Your task to perform on an android device: uninstall "Grab" Image 0: 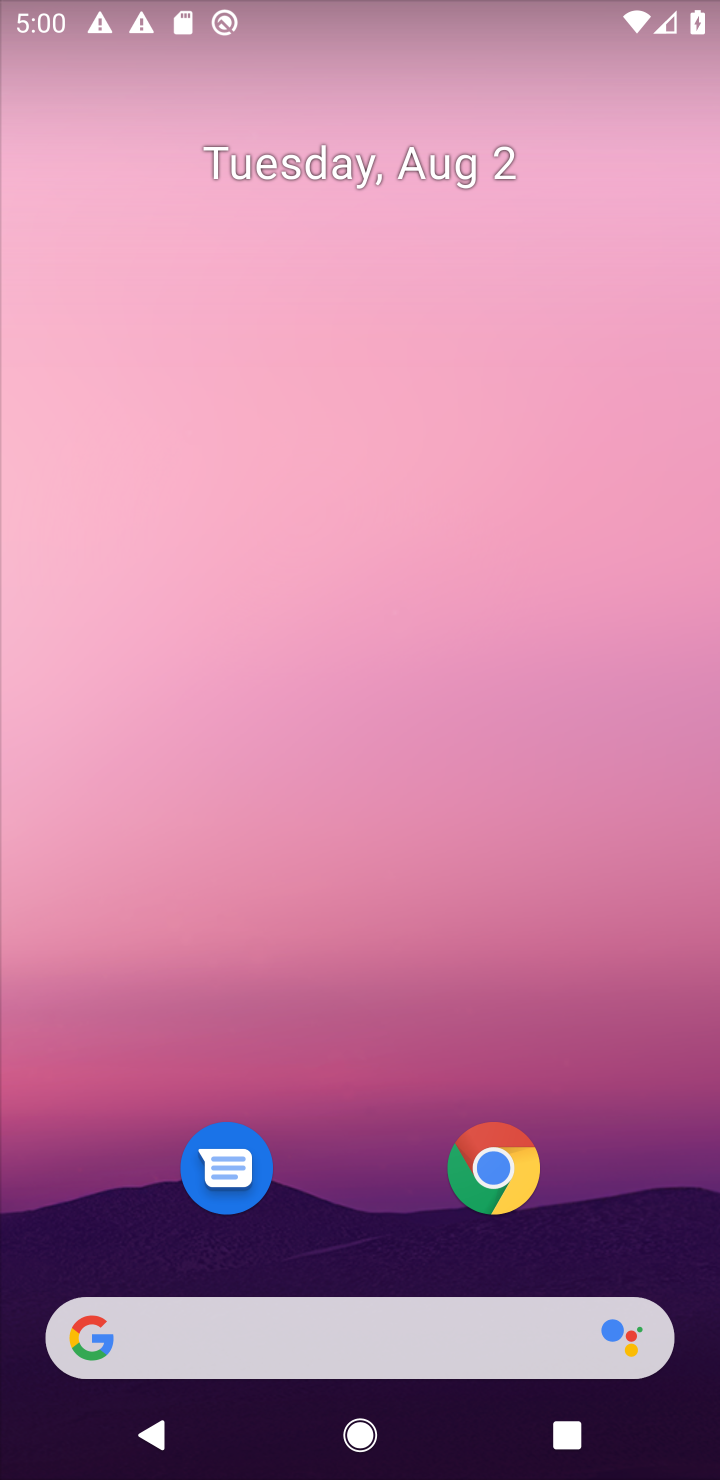
Step 0: drag from (365, 1250) to (335, 59)
Your task to perform on an android device: uninstall "Grab" Image 1: 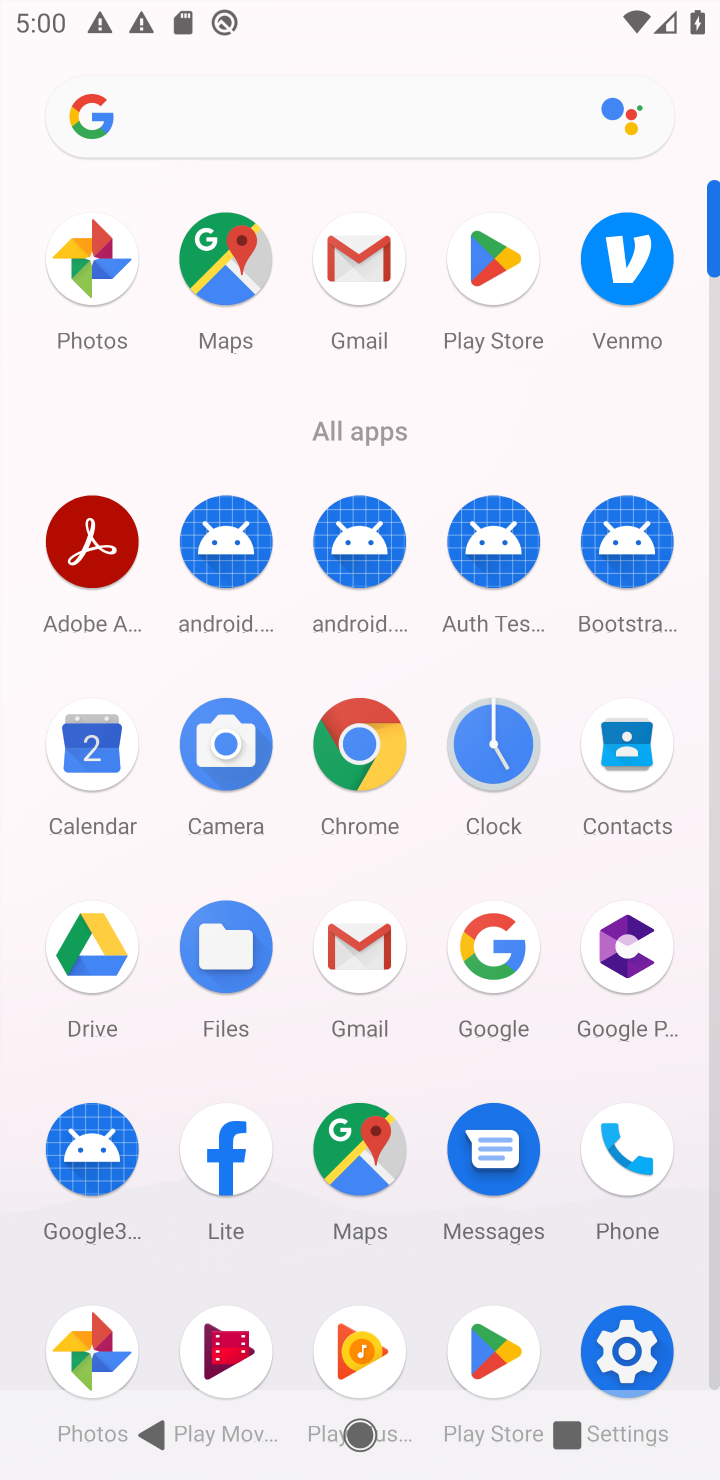
Step 1: click (527, 292)
Your task to perform on an android device: uninstall "Grab" Image 2: 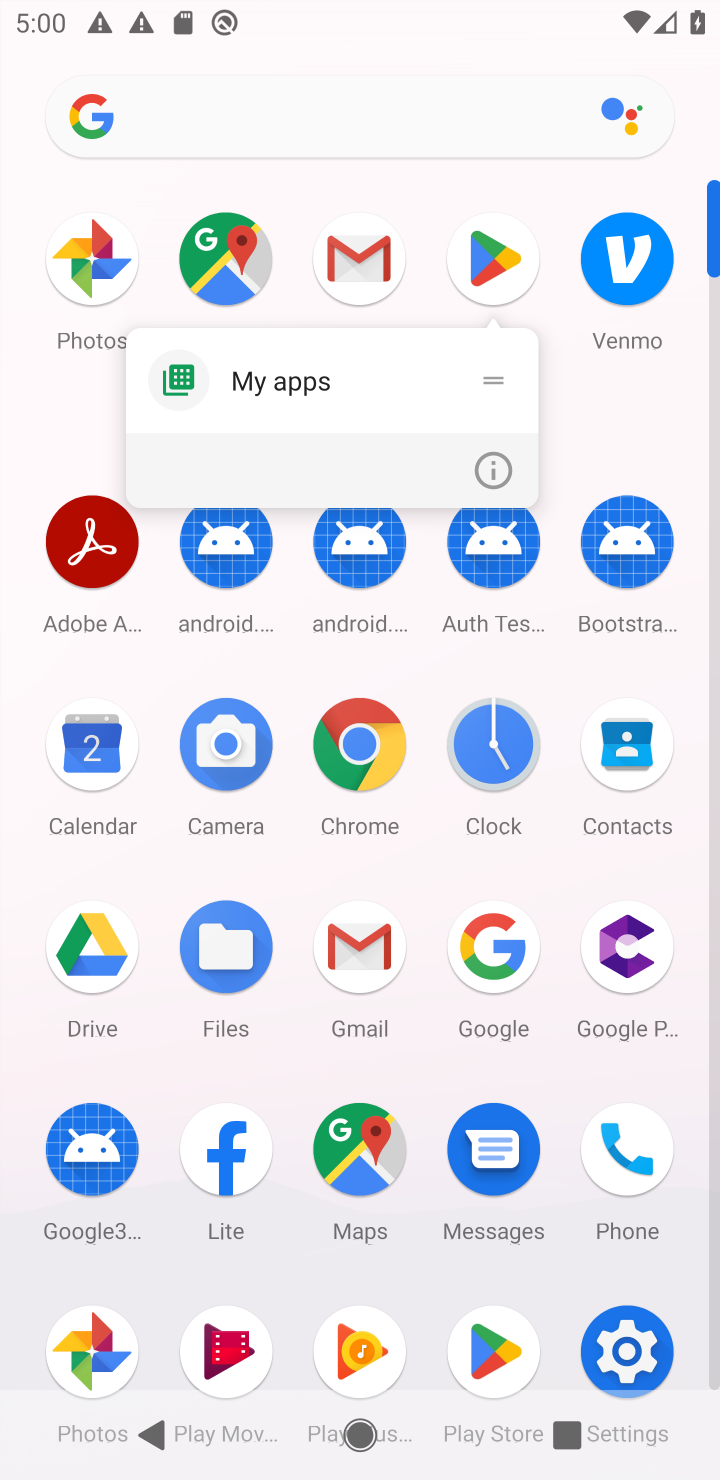
Step 2: click (489, 251)
Your task to perform on an android device: uninstall "Grab" Image 3: 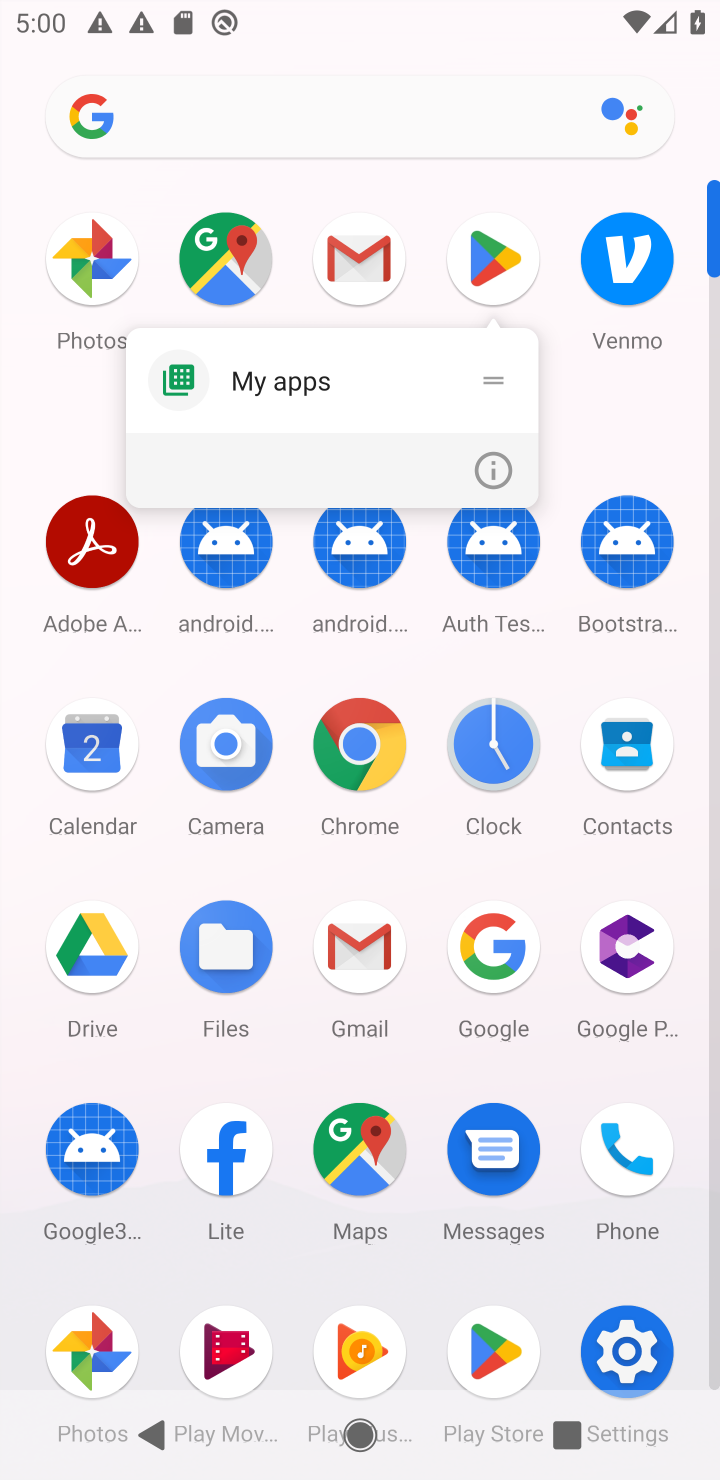
Step 3: click (486, 242)
Your task to perform on an android device: uninstall "Grab" Image 4: 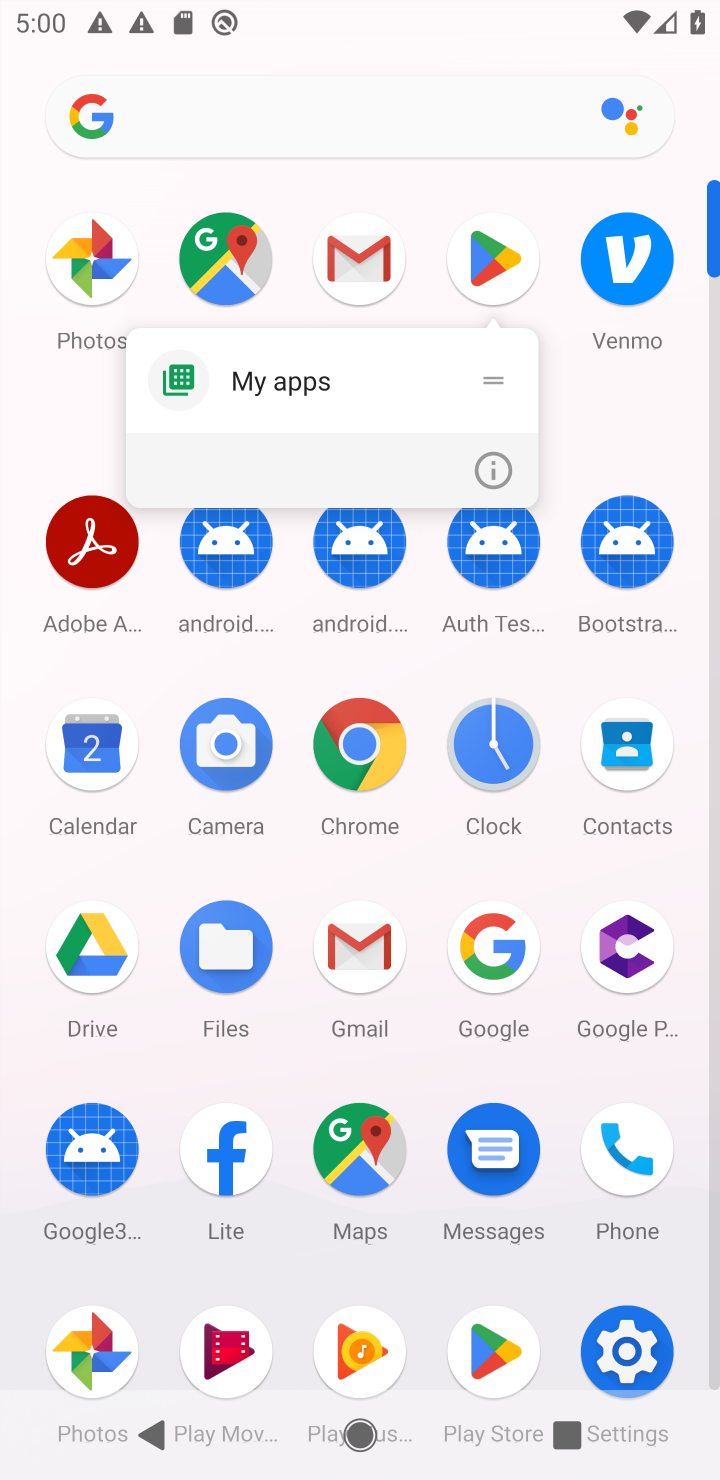
Step 4: click (506, 208)
Your task to perform on an android device: uninstall "Grab" Image 5: 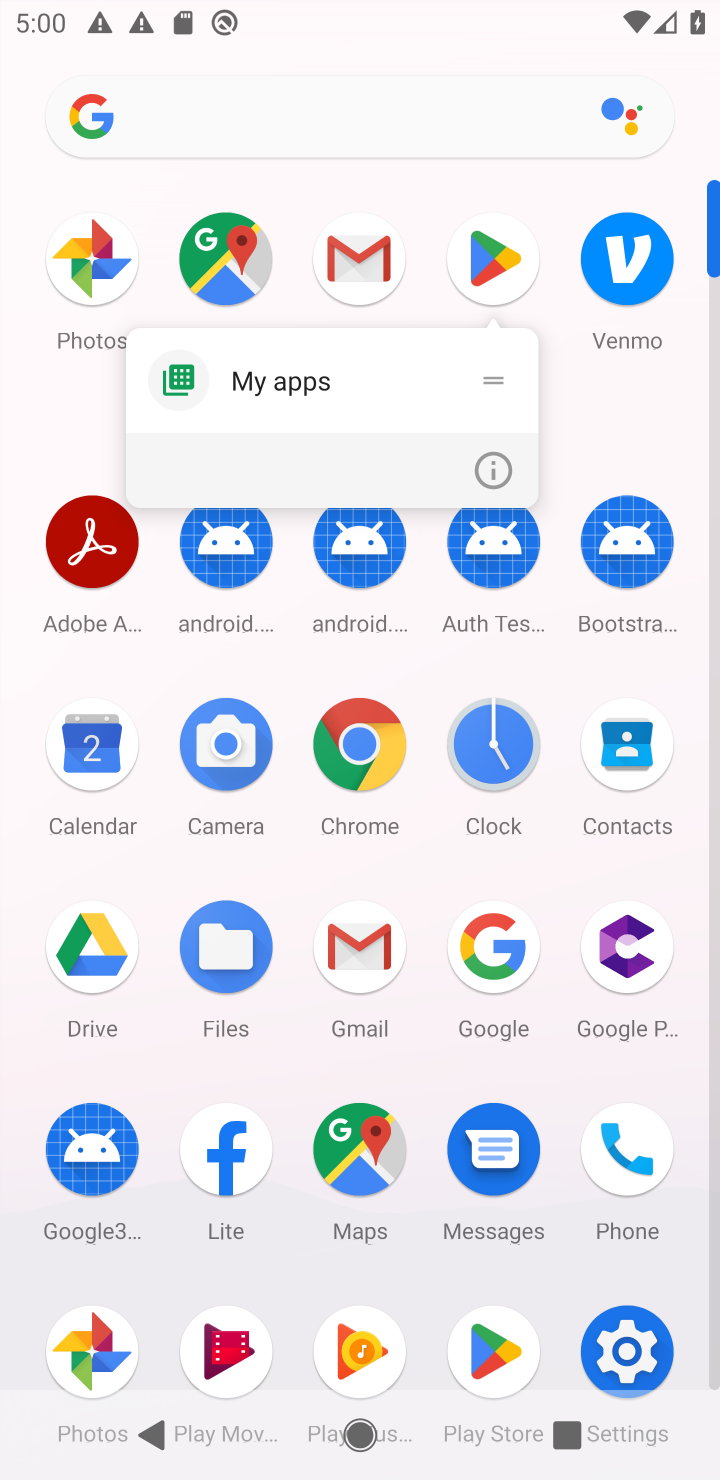
Step 5: click (446, 252)
Your task to perform on an android device: uninstall "Grab" Image 6: 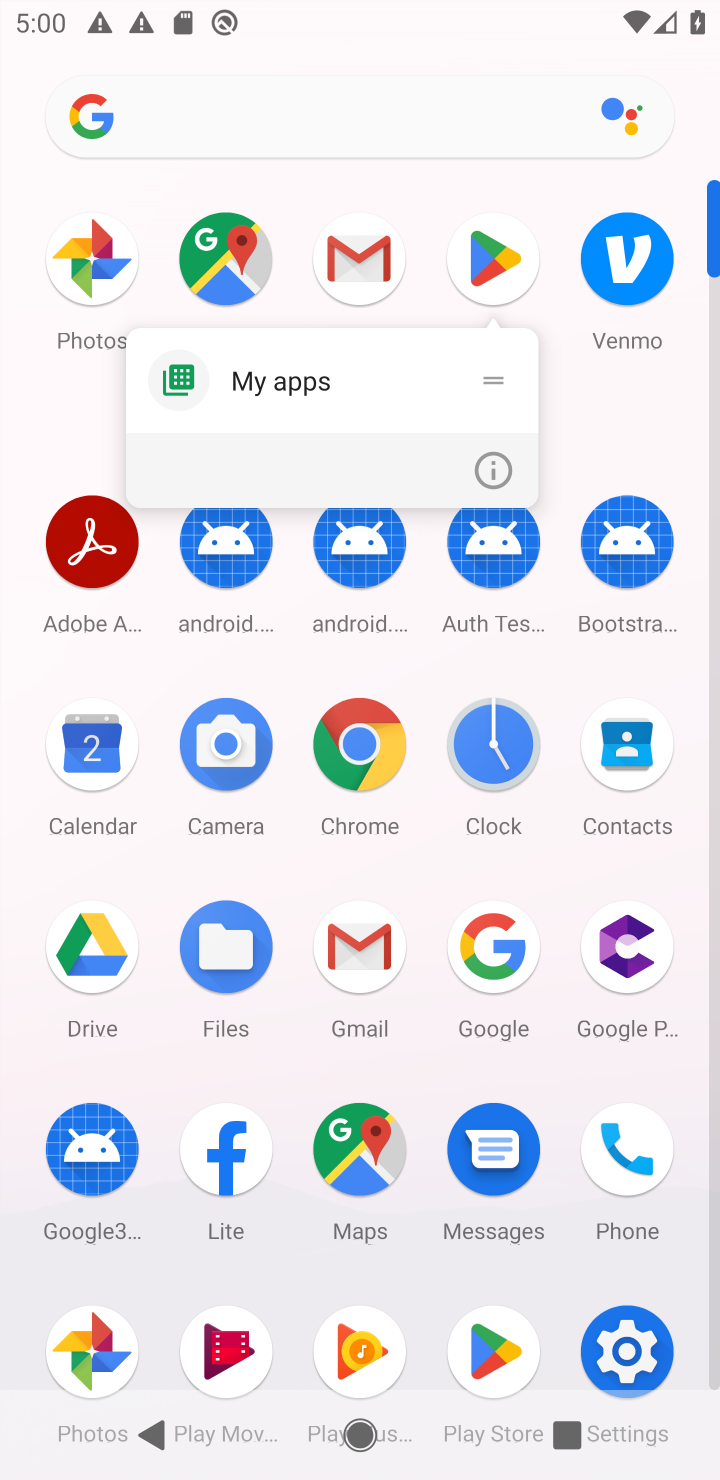
Step 6: click (501, 270)
Your task to perform on an android device: uninstall "Grab" Image 7: 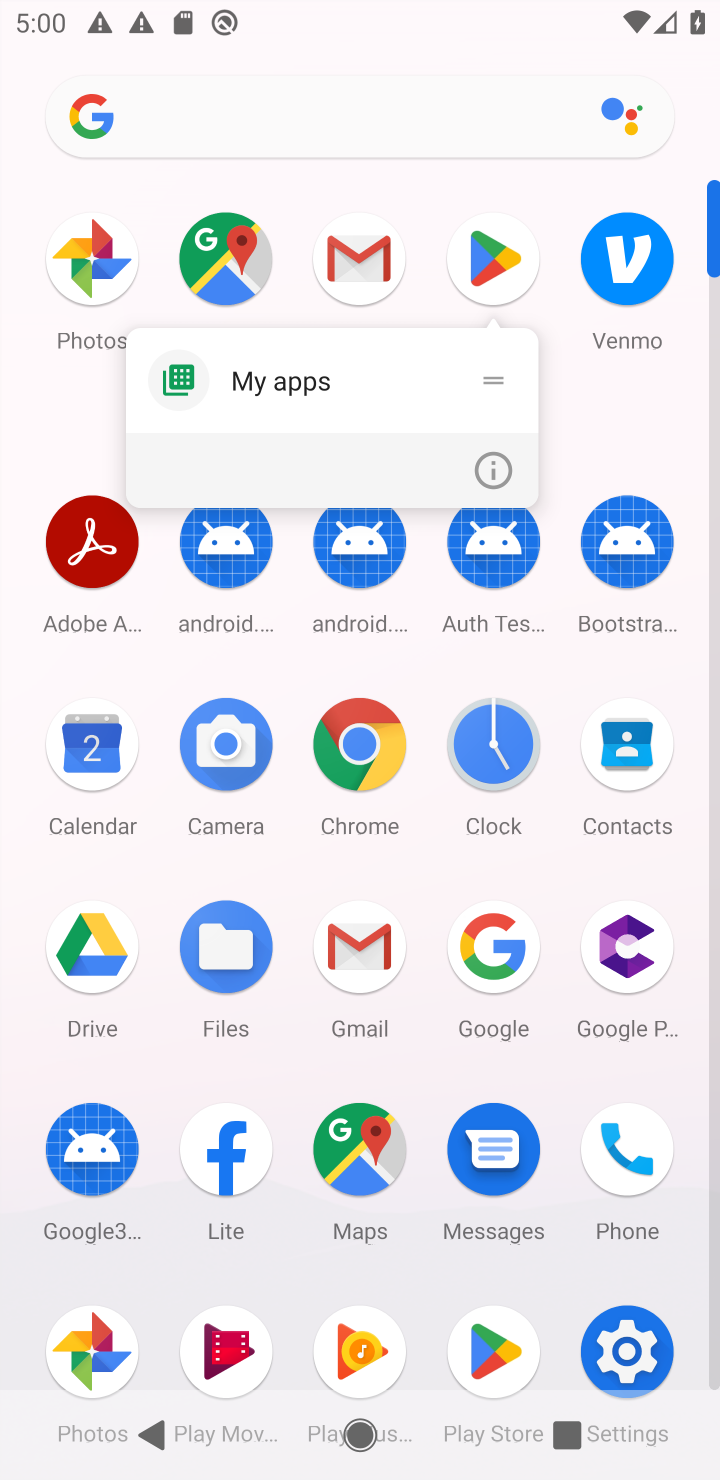
Step 7: click (472, 267)
Your task to perform on an android device: uninstall "Grab" Image 8: 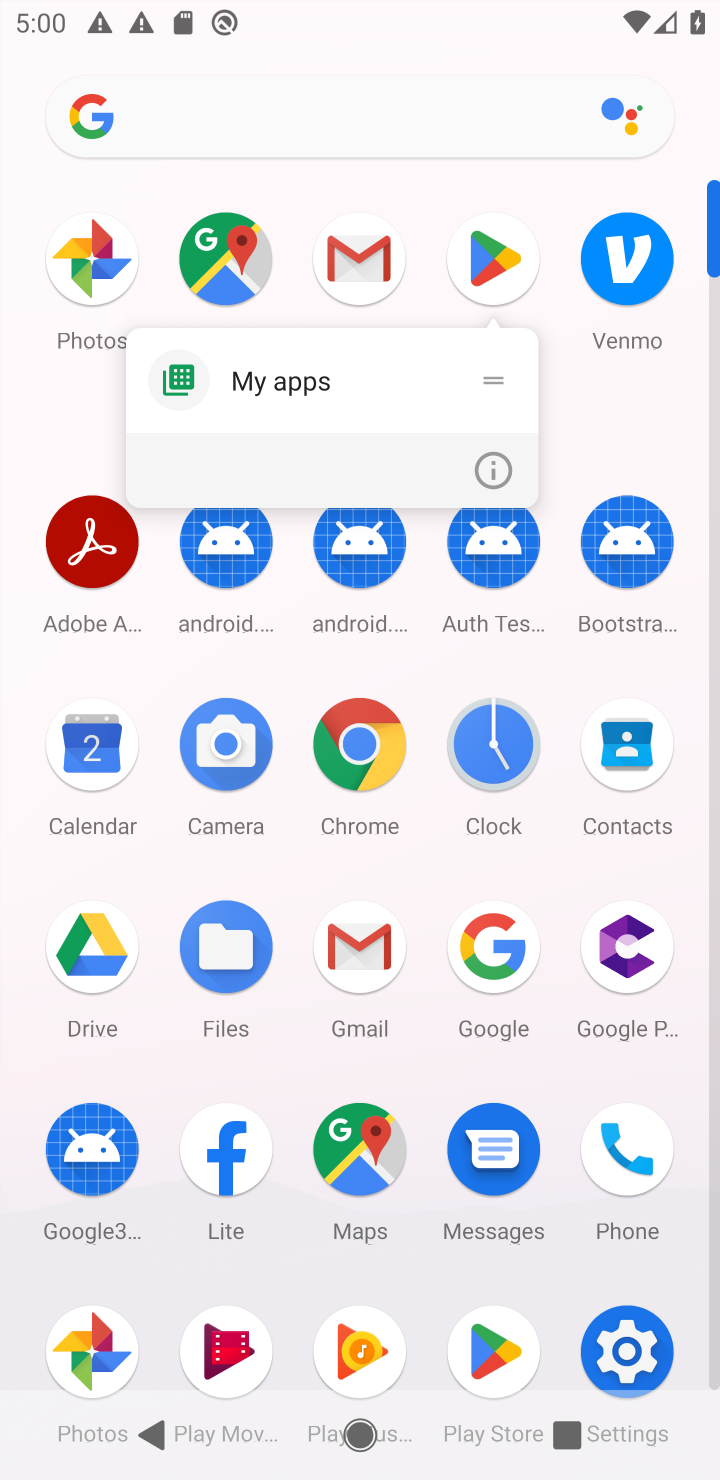
Step 8: click (494, 262)
Your task to perform on an android device: uninstall "Grab" Image 9: 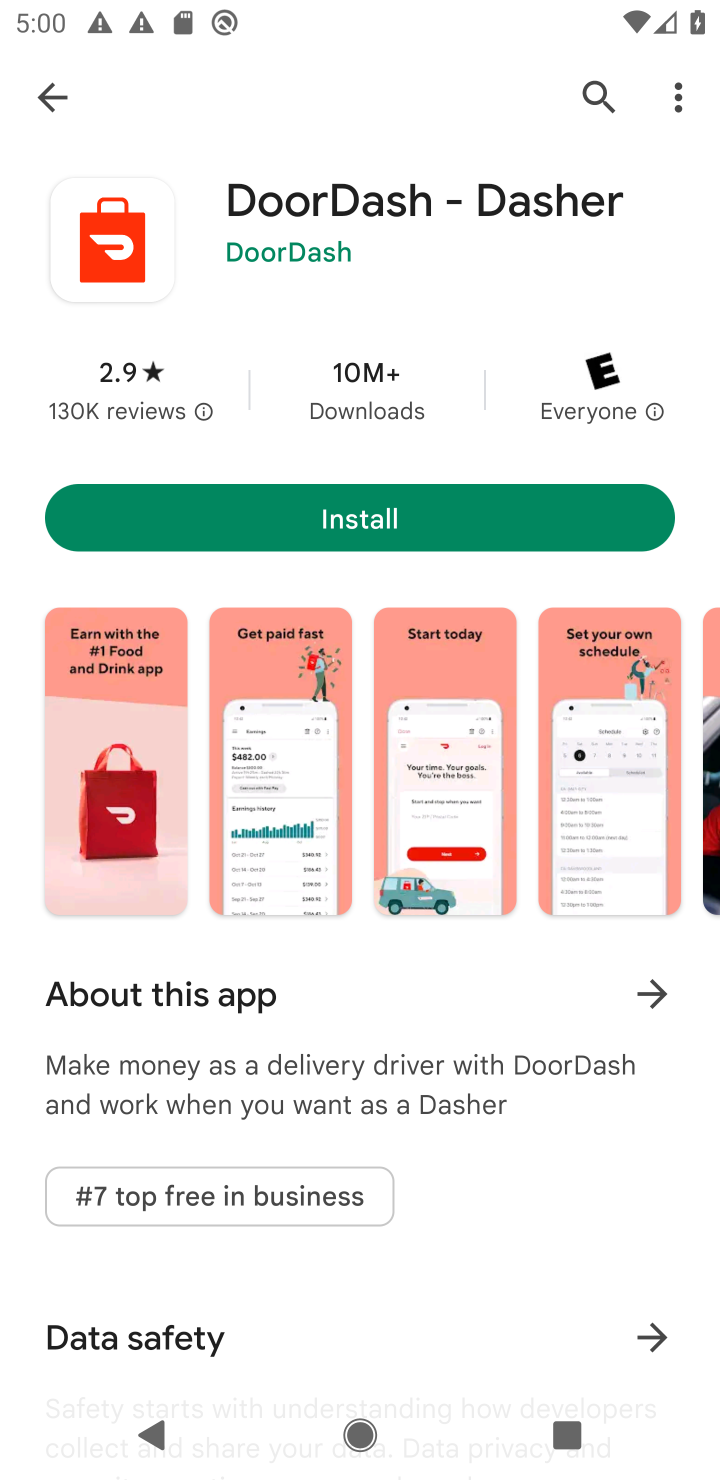
Step 9: click (51, 93)
Your task to perform on an android device: uninstall "Grab" Image 10: 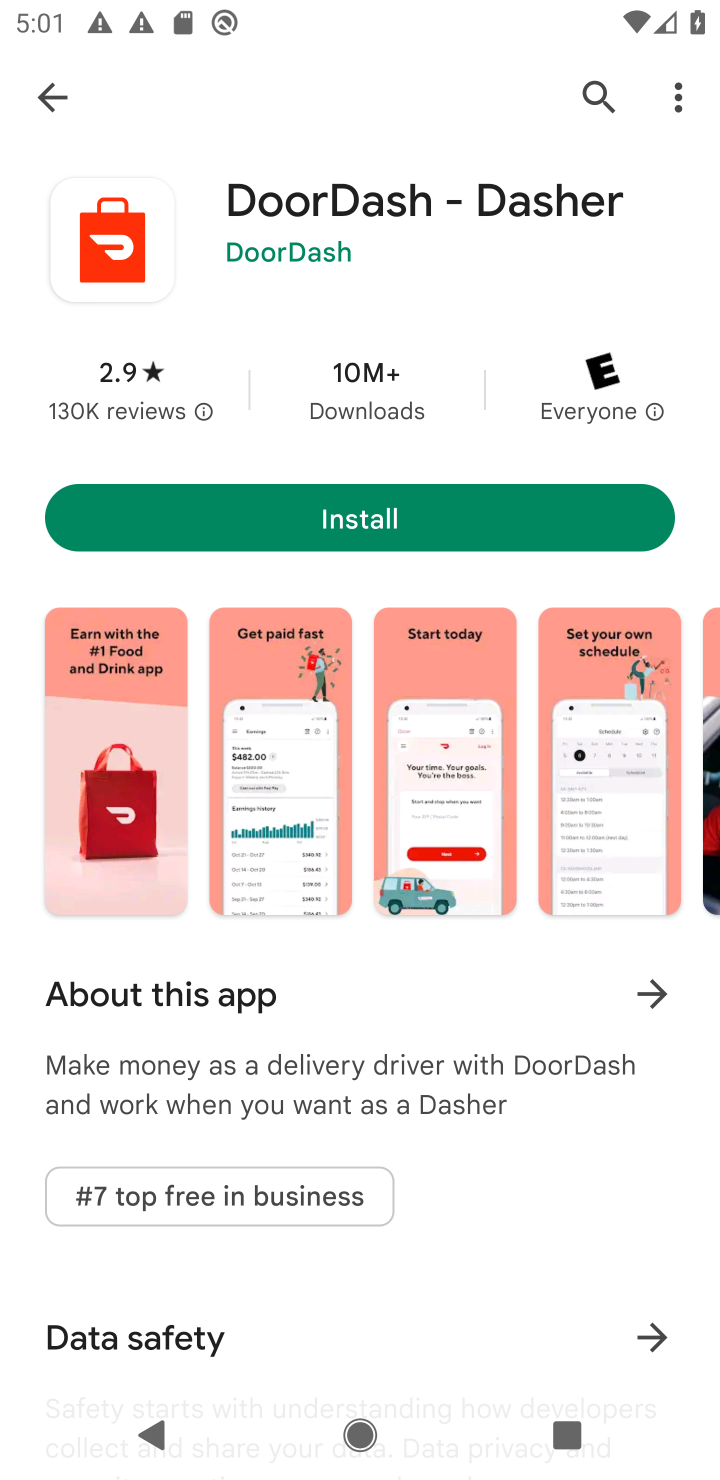
Step 10: click (55, 107)
Your task to perform on an android device: uninstall "Grab" Image 11: 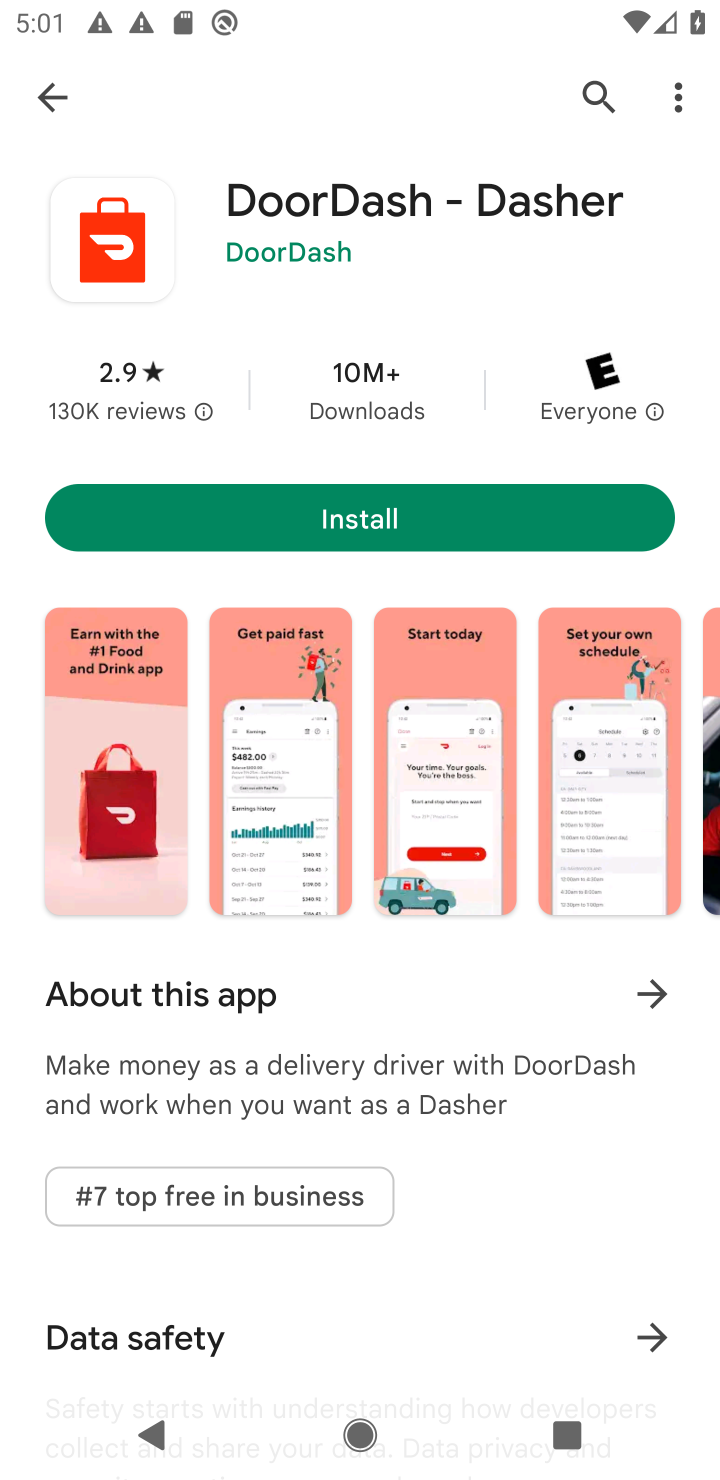
Step 11: click (55, 84)
Your task to perform on an android device: uninstall "Grab" Image 12: 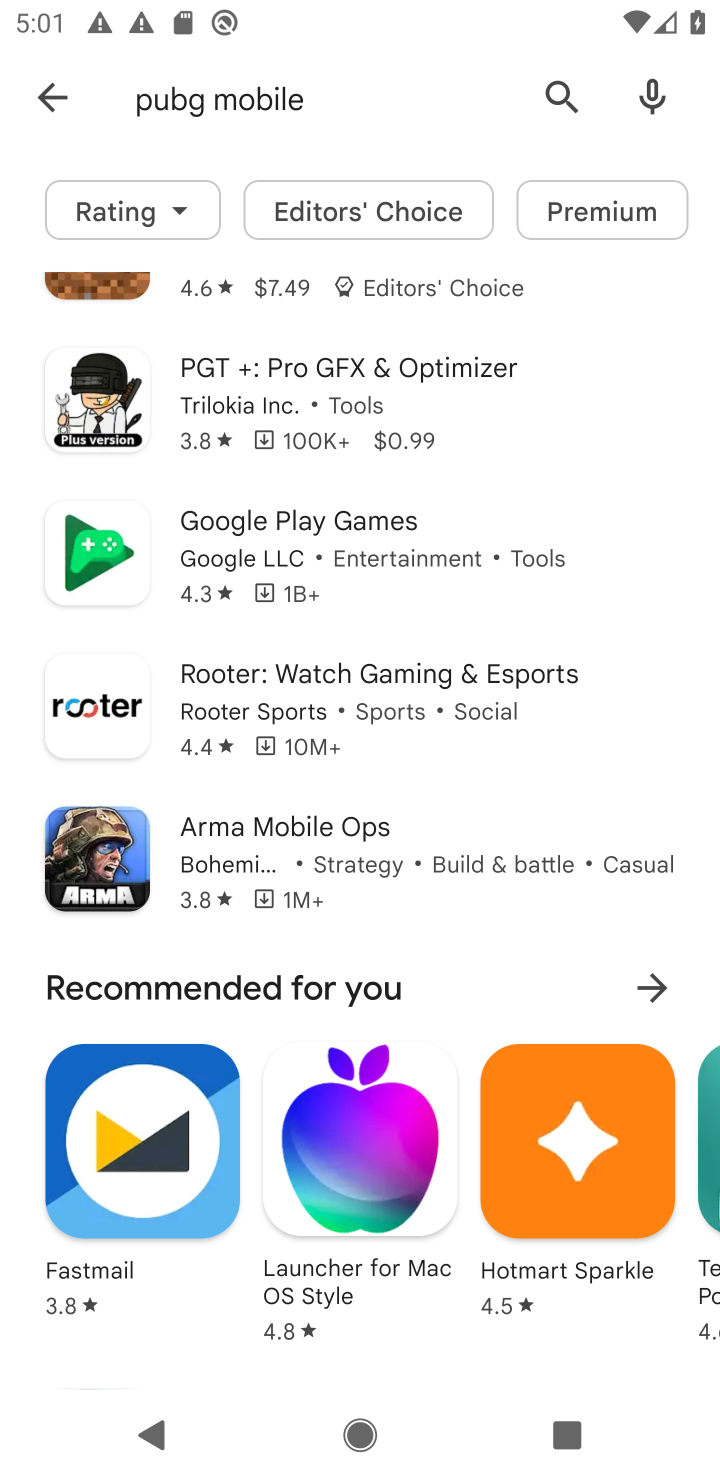
Step 12: click (356, 107)
Your task to perform on an android device: uninstall "Grab" Image 13: 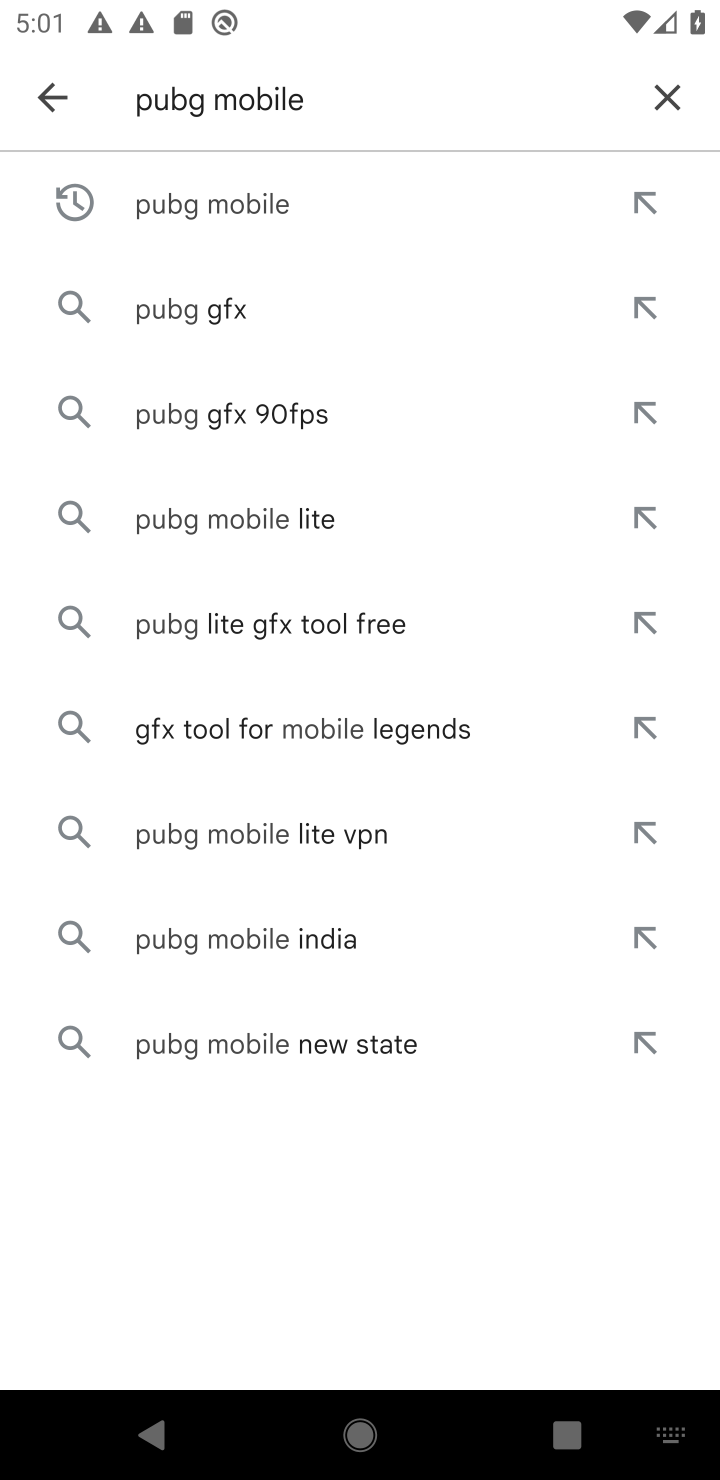
Step 13: click (654, 77)
Your task to perform on an android device: uninstall "Grab" Image 14: 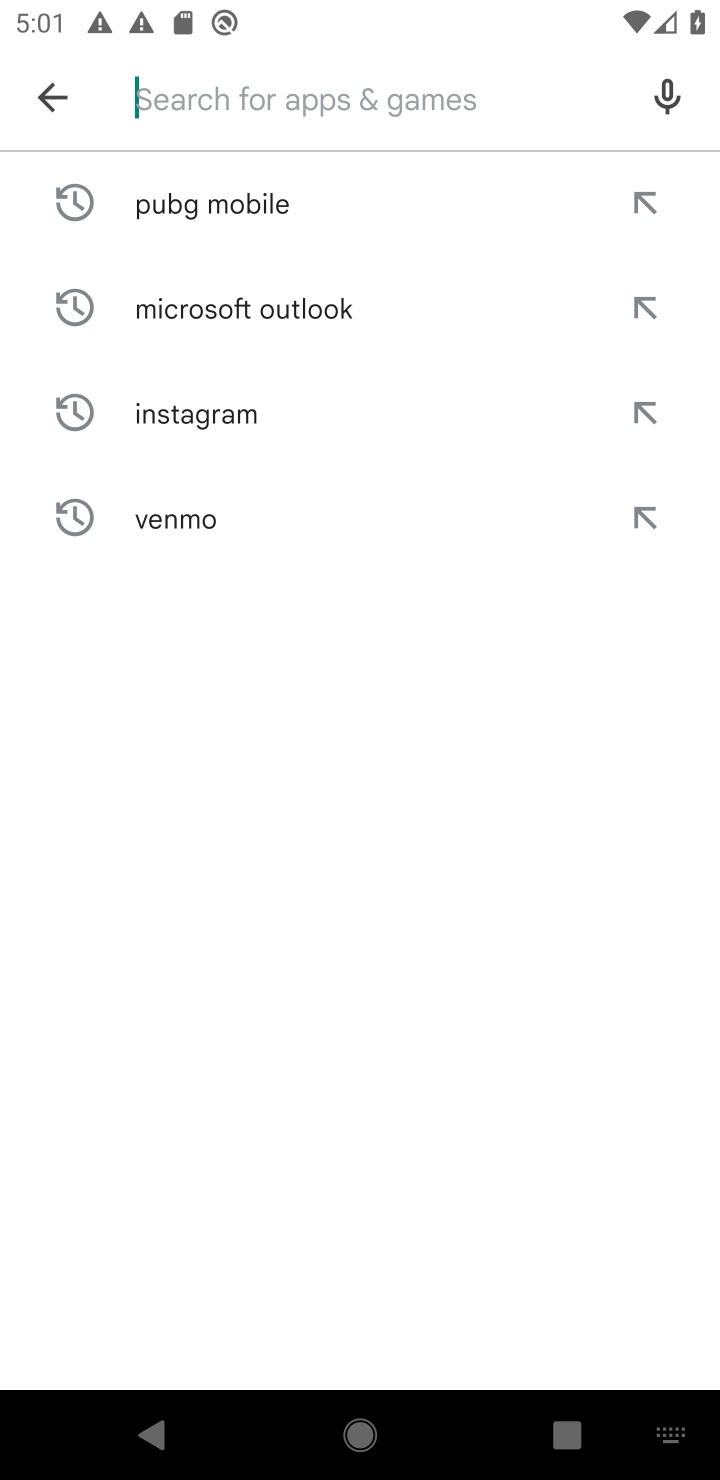
Step 14: type "gvrab"
Your task to perform on an android device: uninstall "Grab" Image 15: 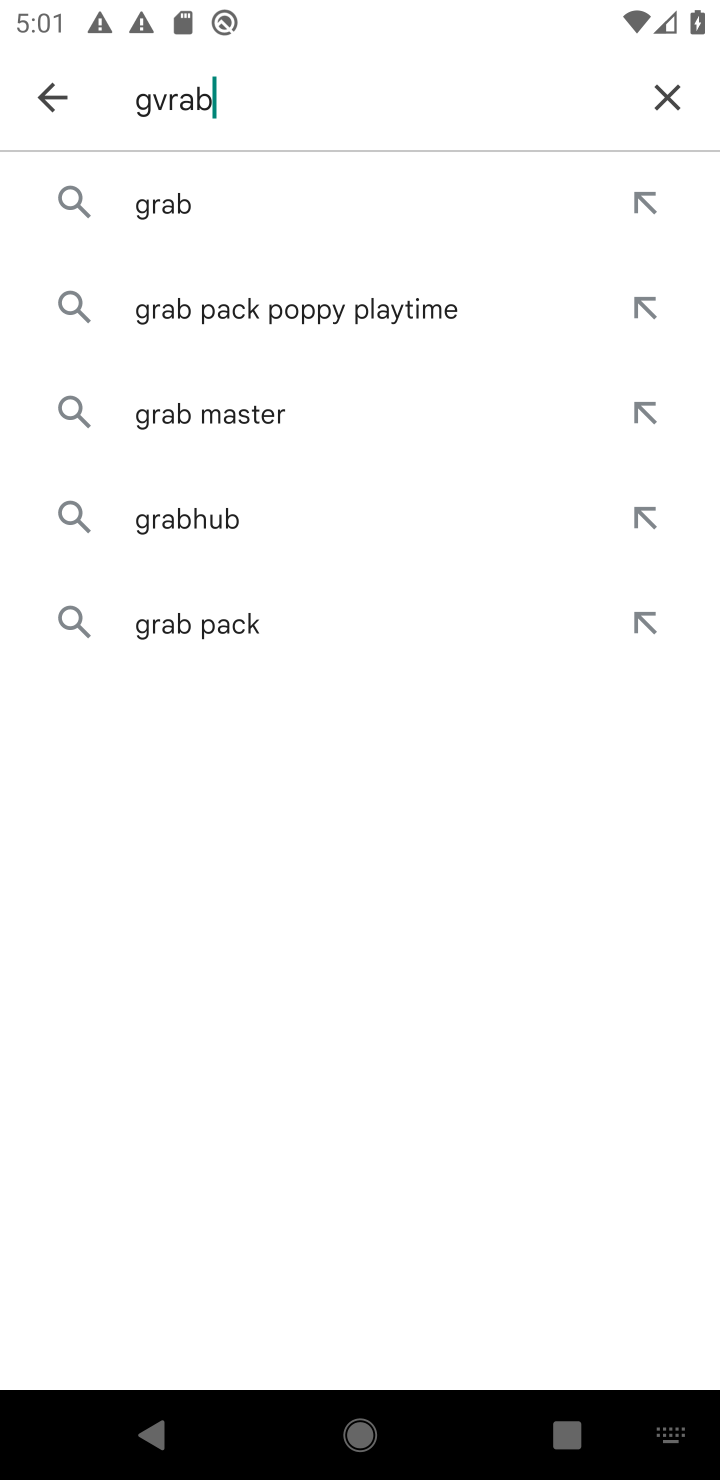
Step 15: click (199, 217)
Your task to perform on an android device: uninstall "Grab" Image 16: 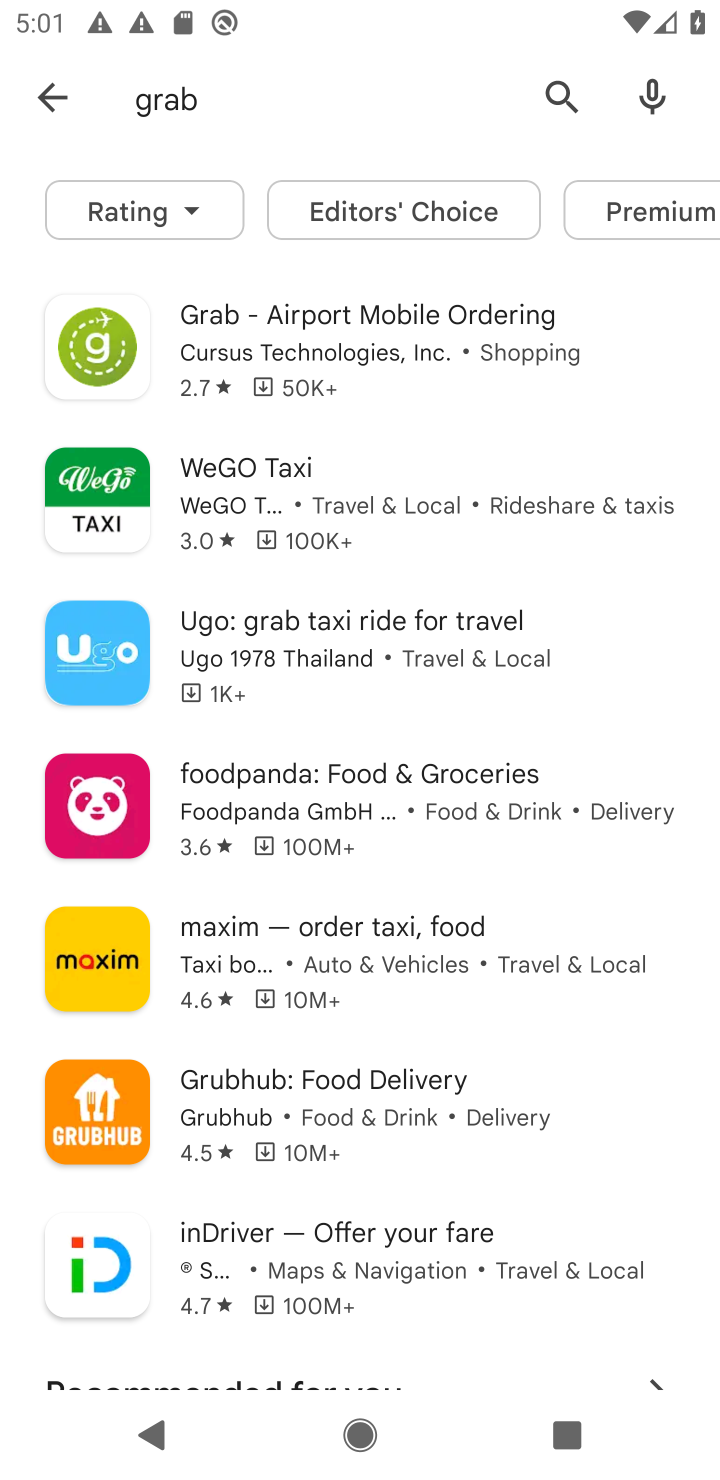
Step 16: click (368, 353)
Your task to perform on an android device: uninstall "Grab" Image 17: 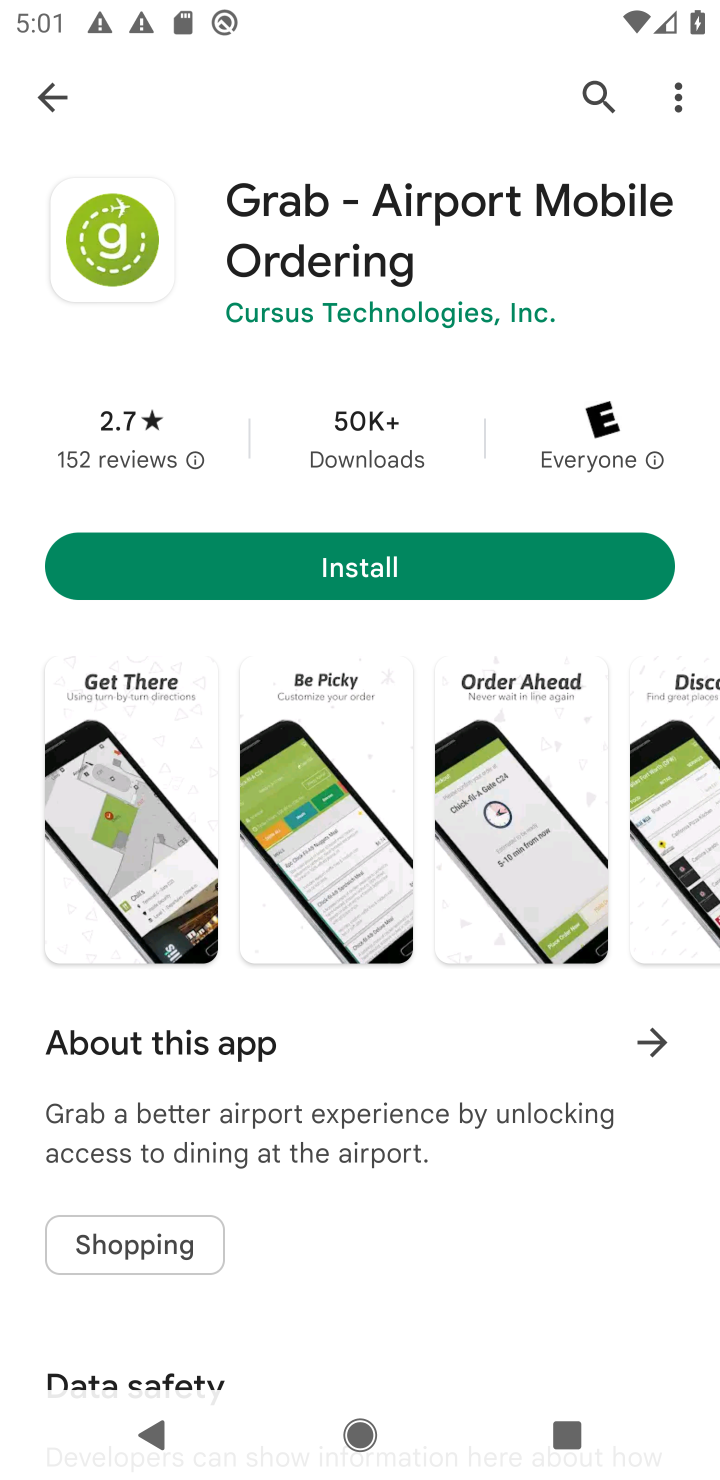
Step 17: task complete